Your task to perform on an android device: toggle notification dots Image 0: 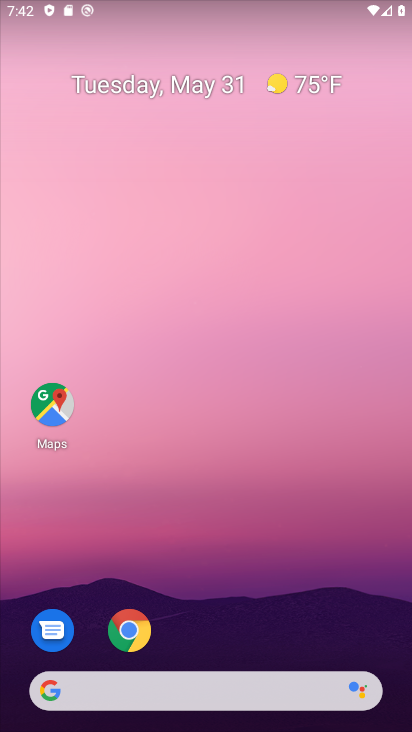
Step 0: drag from (264, 578) to (312, 113)
Your task to perform on an android device: toggle notification dots Image 1: 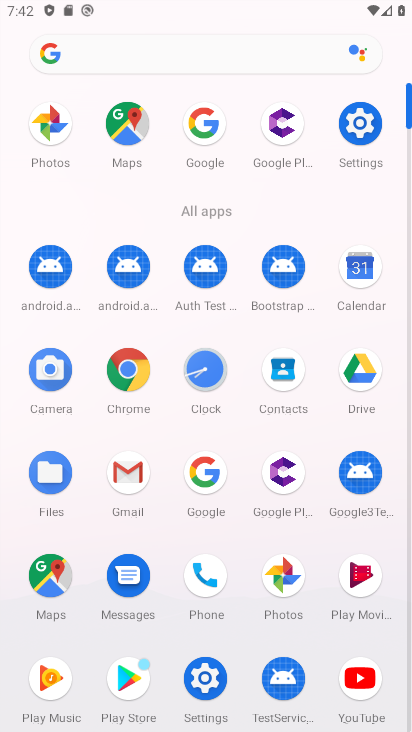
Step 1: click (362, 148)
Your task to perform on an android device: toggle notification dots Image 2: 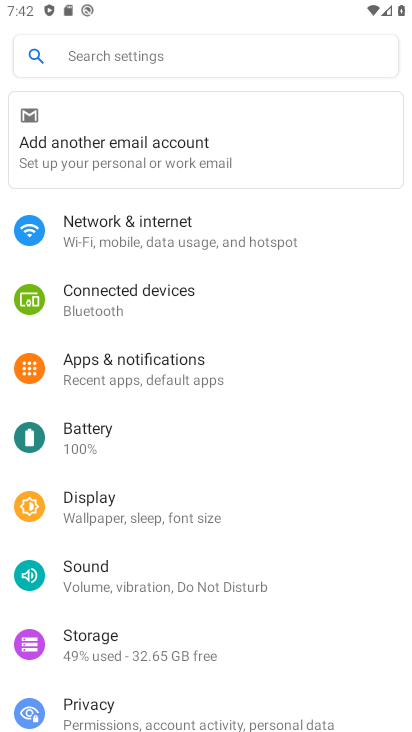
Step 2: click (164, 373)
Your task to perform on an android device: toggle notification dots Image 3: 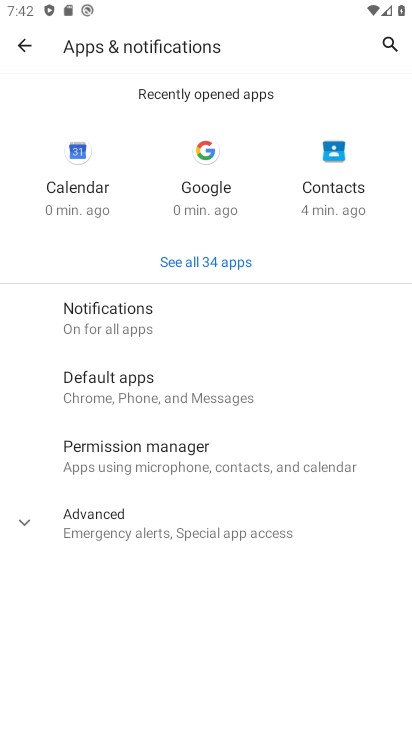
Step 3: click (144, 324)
Your task to perform on an android device: toggle notification dots Image 4: 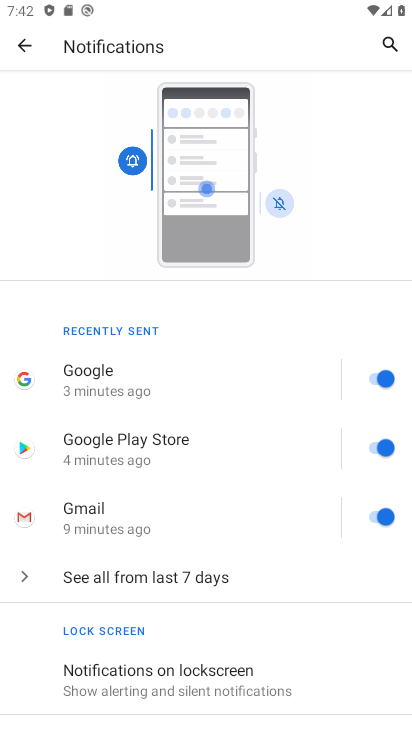
Step 4: drag from (187, 529) to (225, 210)
Your task to perform on an android device: toggle notification dots Image 5: 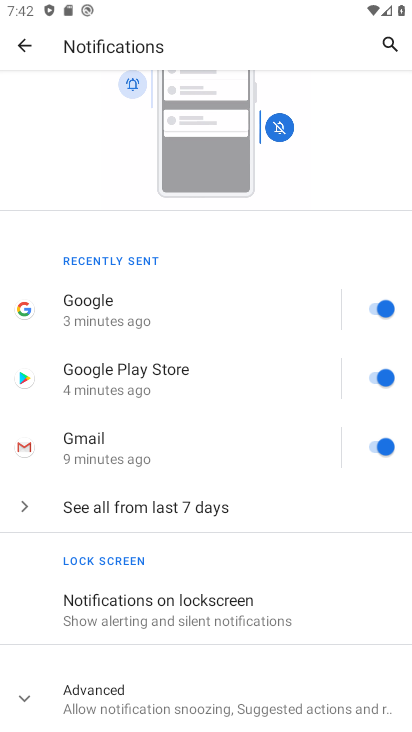
Step 5: drag from (233, 521) to (238, 140)
Your task to perform on an android device: toggle notification dots Image 6: 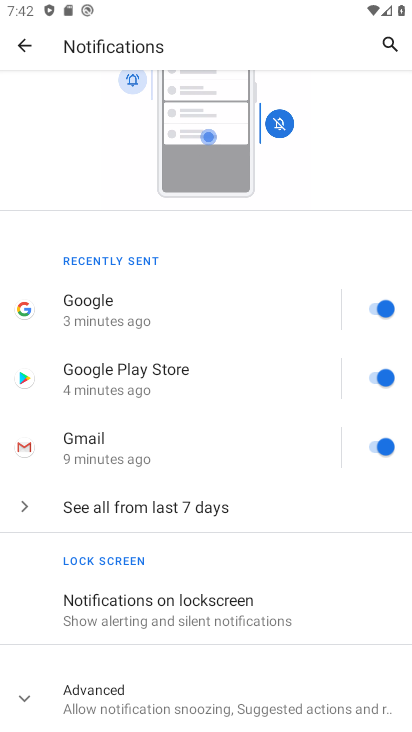
Step 6: click (175, 693)
Your task to perform on an android device: toggle notification dots Image 7: 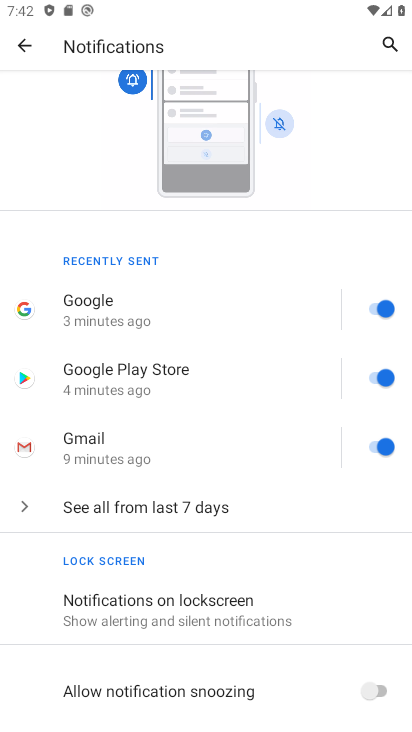
Step 7: drag from (170, 677) to (203, 225)
Your task to perform on an android device: toggle notification dots Image 8: 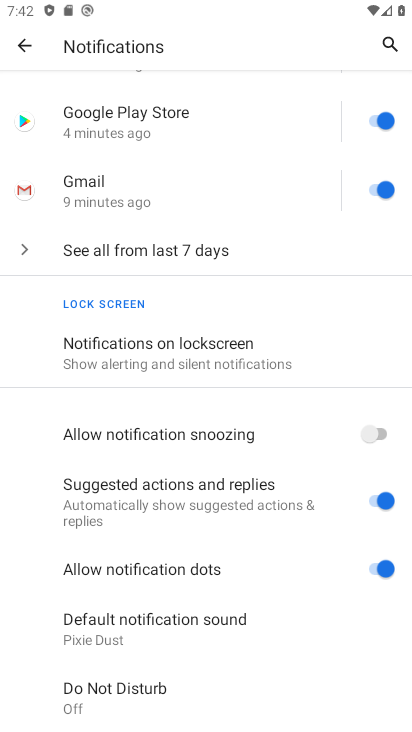
Step 8: click (194, 562)
Your task to perform on an android device: toggle notification dots Image 9: 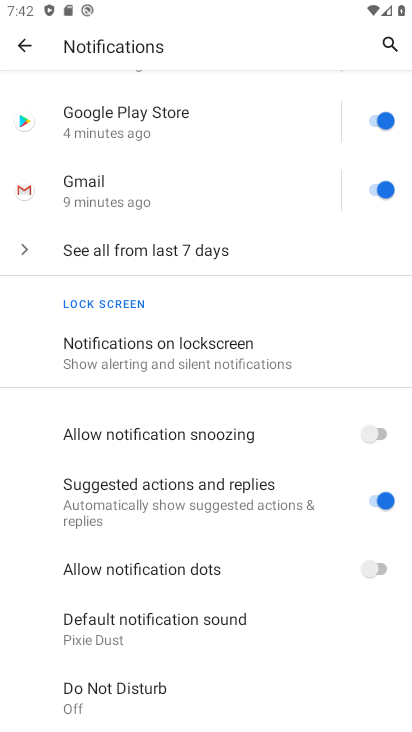
Step 9: task complete